Your task to perform on an android device: When is my next meeting? Image 0: 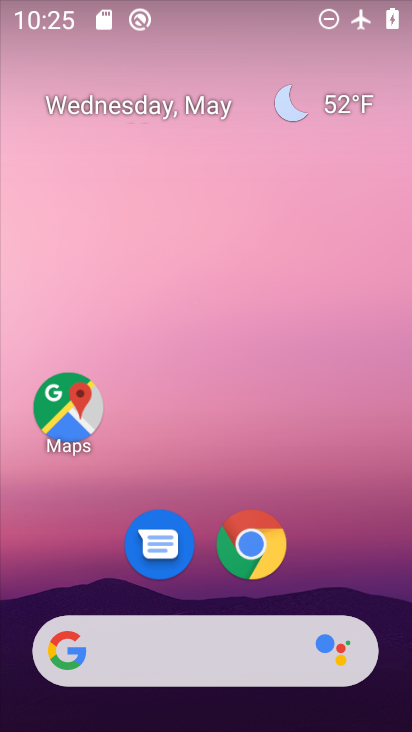
Step 0: drag from (205, 597) to (196, 103)
Your task to perform on an android device: When is my next meeting? Image 1: 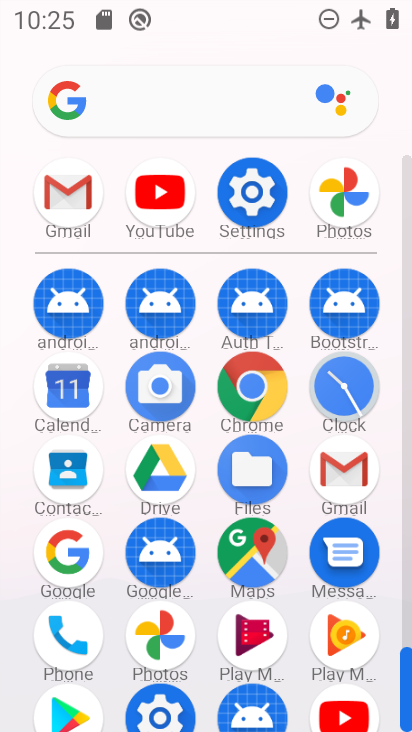
Step 1: click (80, 396)
Your task to perform on an android device: When is my next meeting? Image 2: 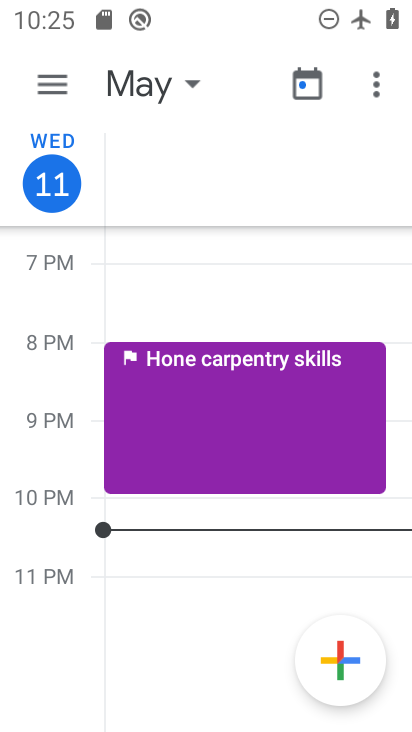
Step 2: click (60, 62)
Your task to perform on an android device: When is my next meeting? Image 3: 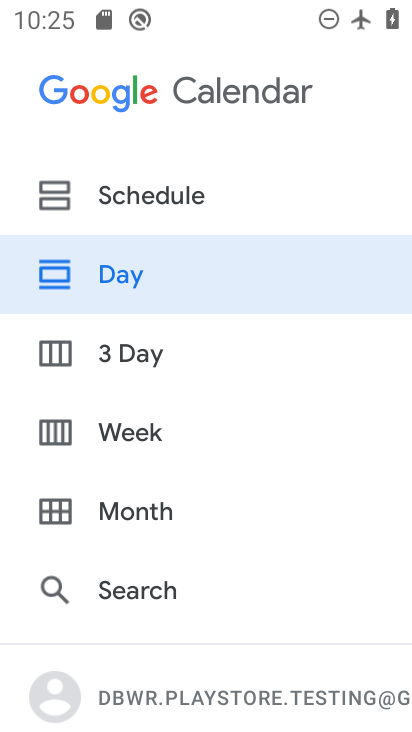
Step 3: drag from (265, 586) to (310, 90)
Your task to perform on an android device: When is my next meeting? Image 4: 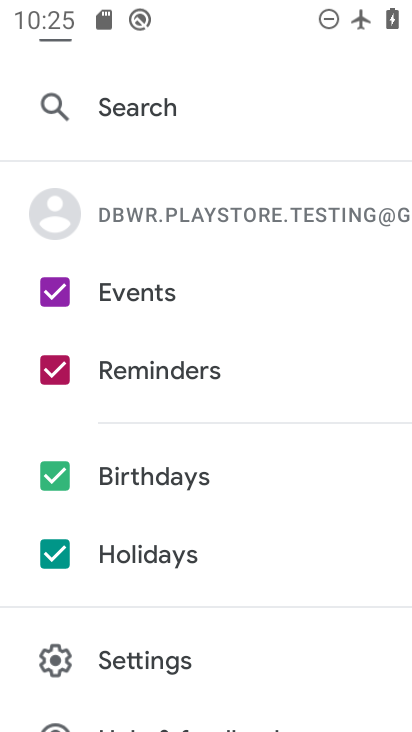
Step 4: click (158, 82)
Your task to perform on an android device: When is my next meeting? Image 5: 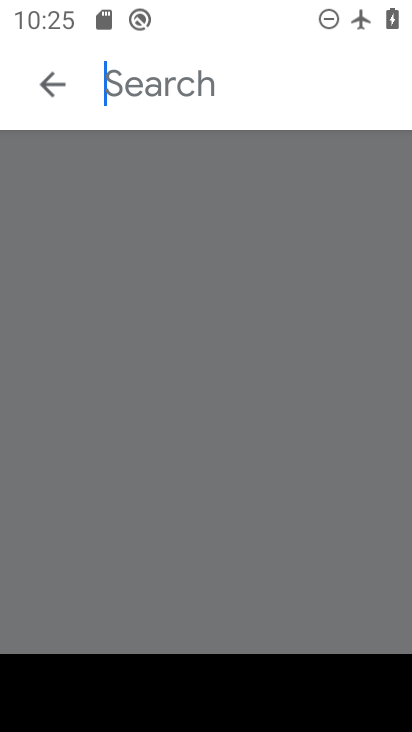
Step 5: type "meeting"
Your task to perform on an android device: When is my next meeting? Image 6: 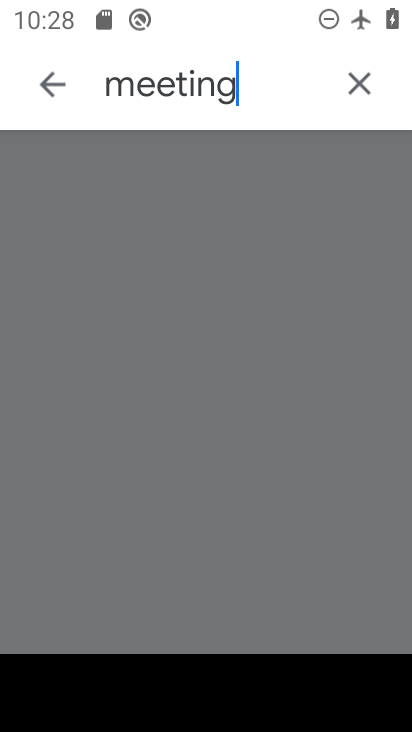
Step 6: task complete